Your task to perform on an android device: set the timer Image 0: 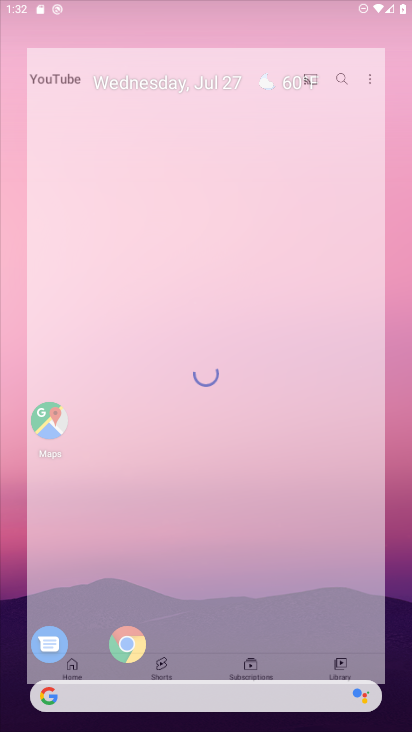
Step 0: drag from (178, 657) to (193, 149)
Your task to perform on an android device: set the timer Image 1: 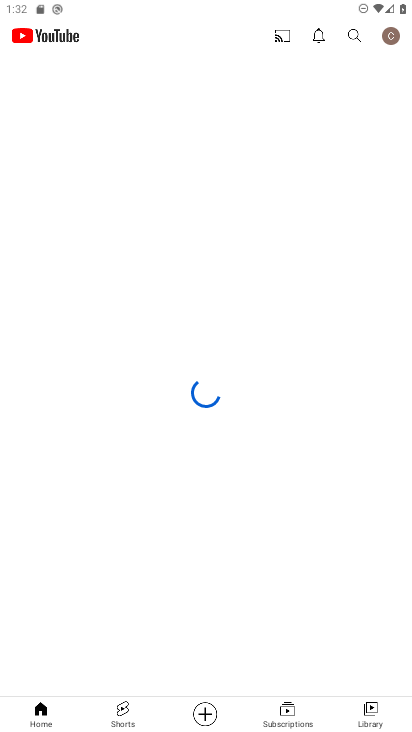
Step 1: press home button
Your task to perform on an android device: set the timer Image 2: 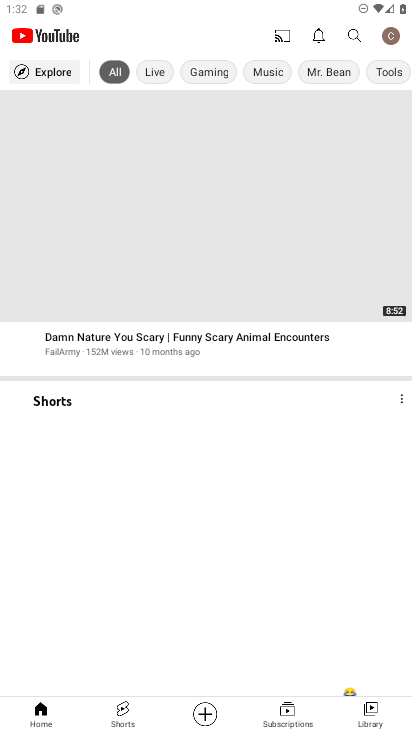
Step 2: press home button
Your task to perform on an android device: set the timer Image 3: 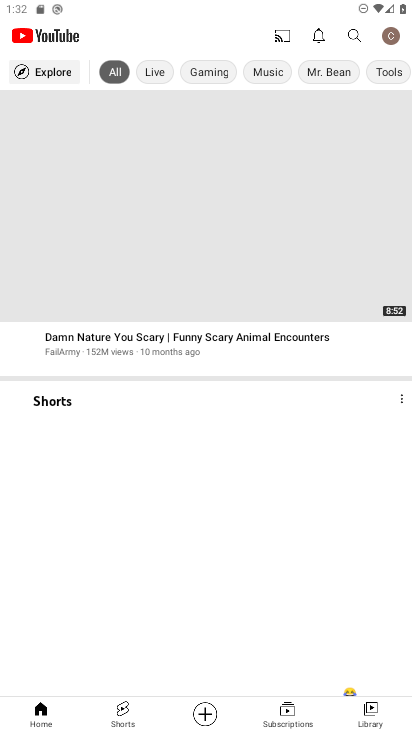
Step 3: click (246, 27)
Your task to perform on an android device: set the timer Image 4: 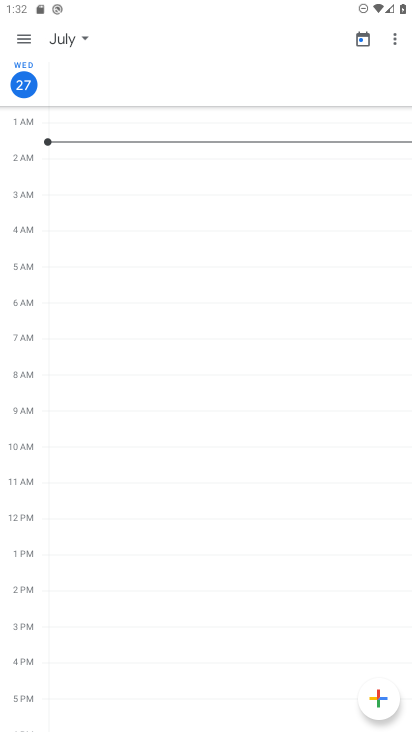
Step 4: press home button
Your task to perform on an android device: set the timer Image 5: 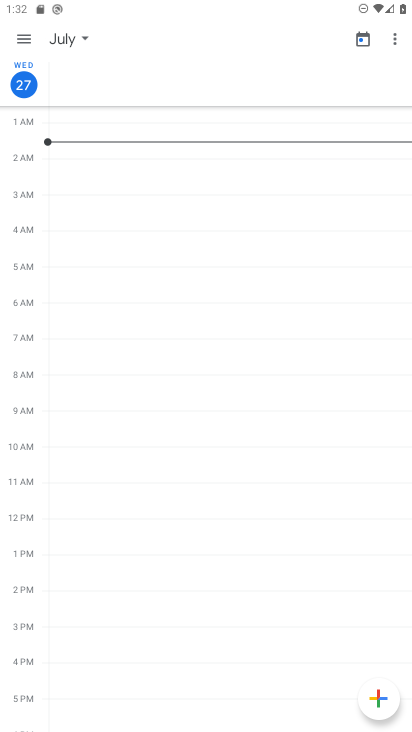
Step 5: press home button
Your task to perform on an android device: set the timer Image 6: 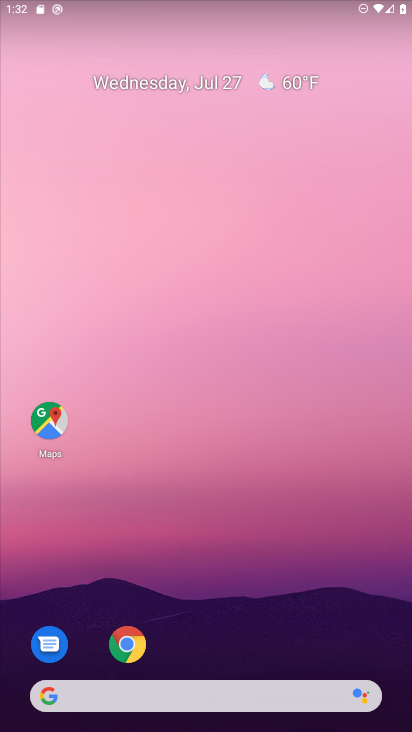
Step 6: drag from (192, 617) to (194, 26)
Your task to perform on an android device: set the timer Image 7: 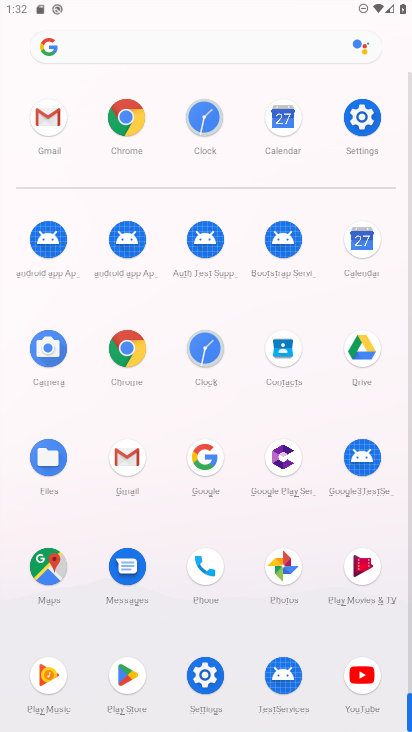
Step 7: click (352, 112)
Your task to perform on an android device: set the timer Image 8: 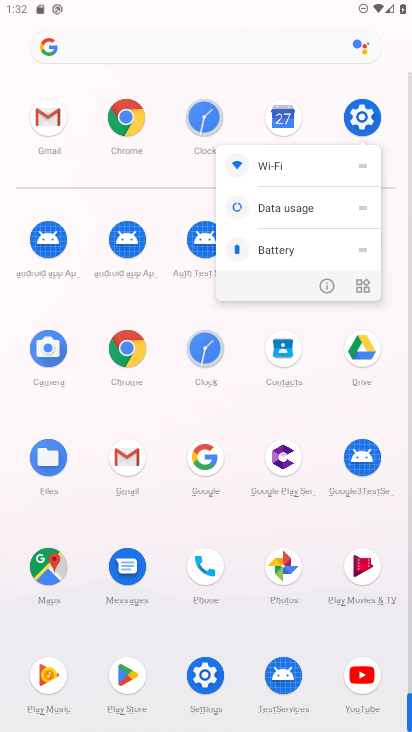
Step 8: click (188, 347)
Your task to perform on an android device: set the timer Image 9: 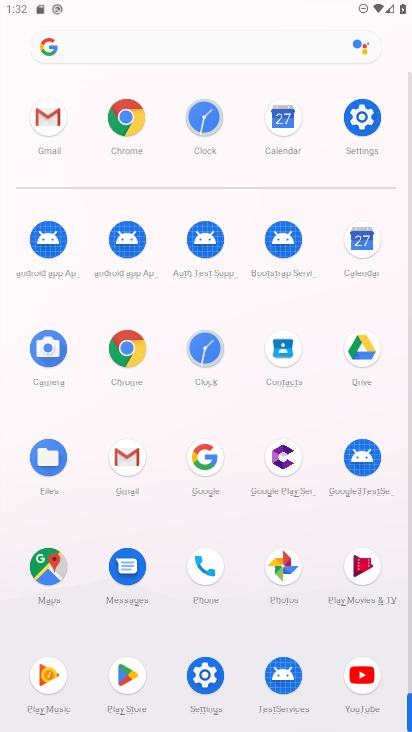
Step 9: click (199, 346)
Your task to perform on an android device: set the timer Image 10: 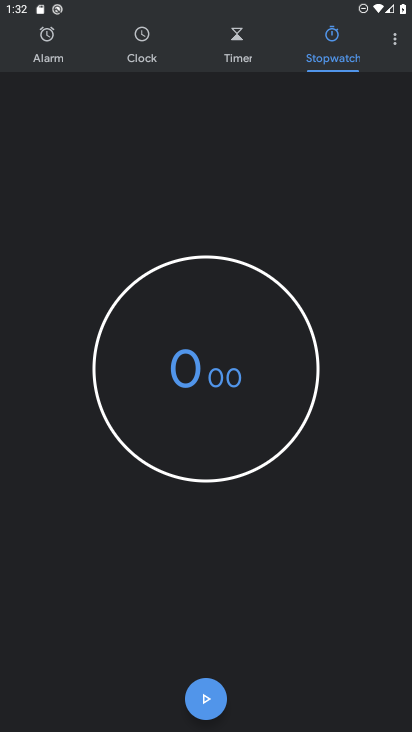
Step 10: click (236, 24)
Your task to perform on an android device: set the timer Image 11: 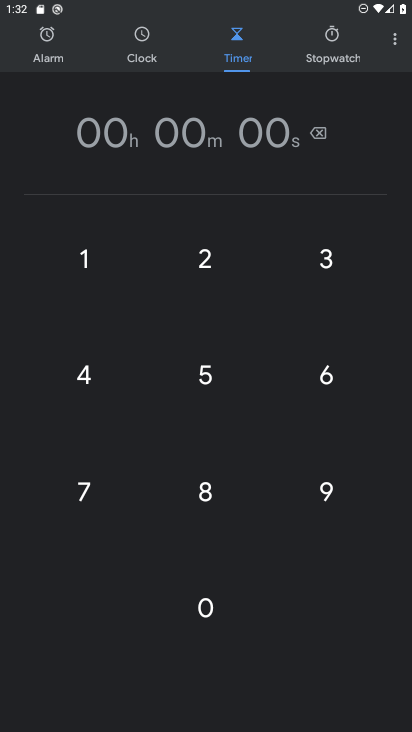
Step 11: drag from (209, 263) to (330, 259)
Your task to perform on an android device: set the timer Image 12: 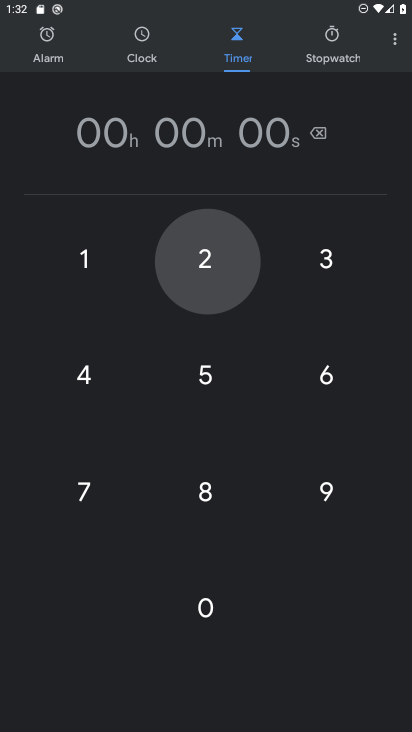
Step 12: click (254, 346)
Your task to perform on an android device: set the timer Image 13: 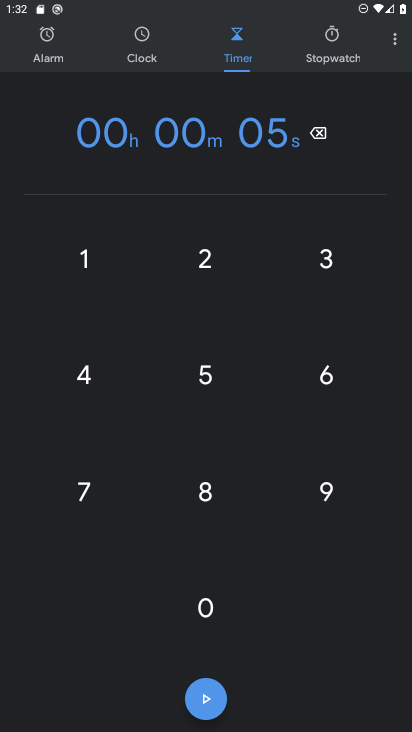
Step 13: click (201, 700)
Your task to perform on an android device: set the timer Image 14: 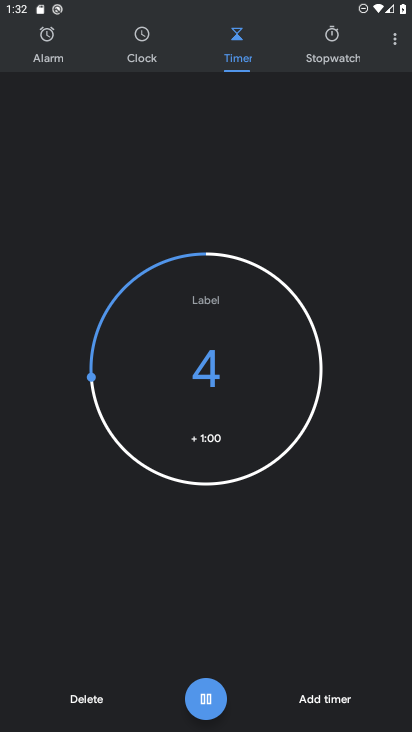
Step 14: task complete